Your task to perform on an android device: change alarm snooze length Image 0: 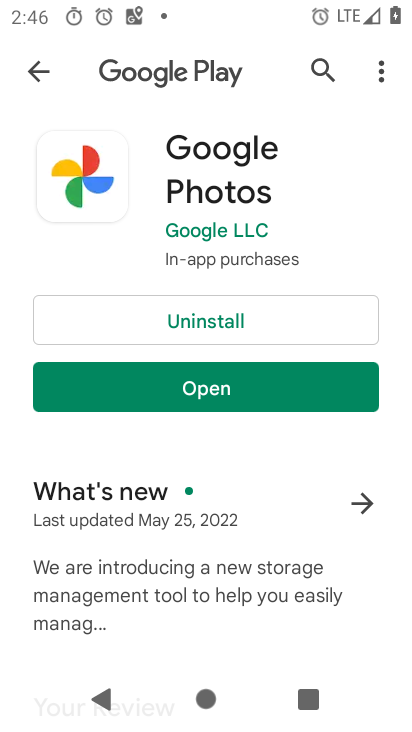
Step 0: press home button
Your task to perform on an android device: change alarm snooze length Image 1: 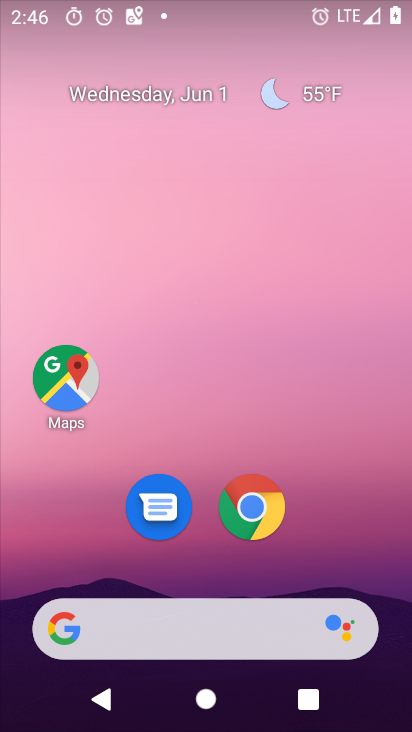
Step 1: drag from (304, 572) to (331, 6)
Your task to perform on an android device: change alarm snooze length Image 2: 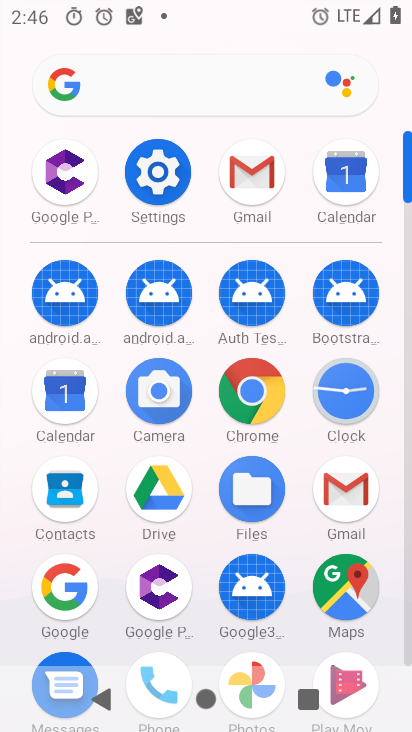
Step 2: click (345, 403)
Your task to perform on an android device: change alarm snooze length Image 3: 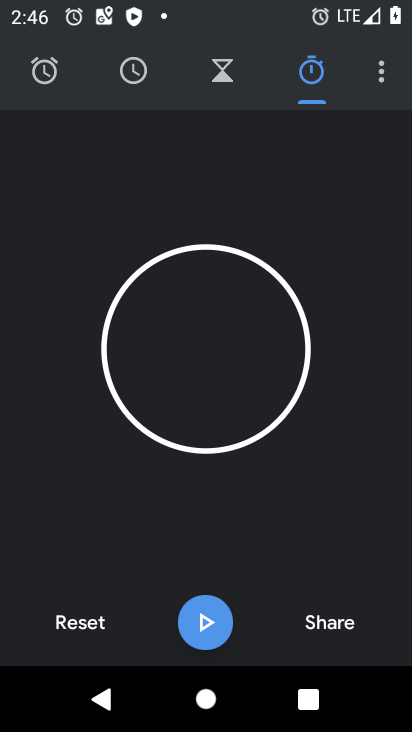
Step 3: click (383, 69)
Your task to perform on an android device: change alarm snooze length Image 4: 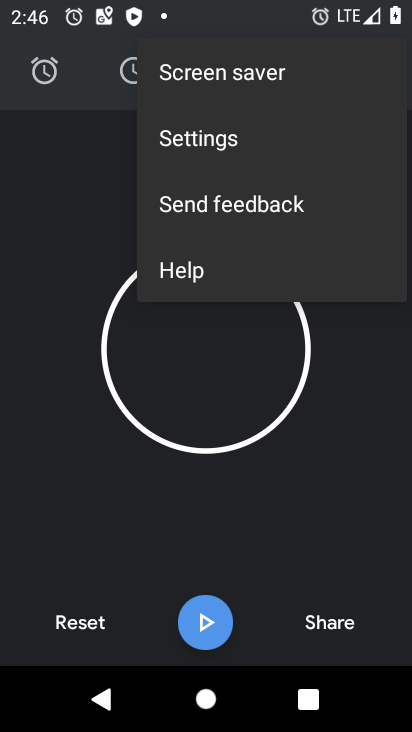
Step 4: click (212, 146)
Your task to perform on an android device: change alarm snooze length Image 5: 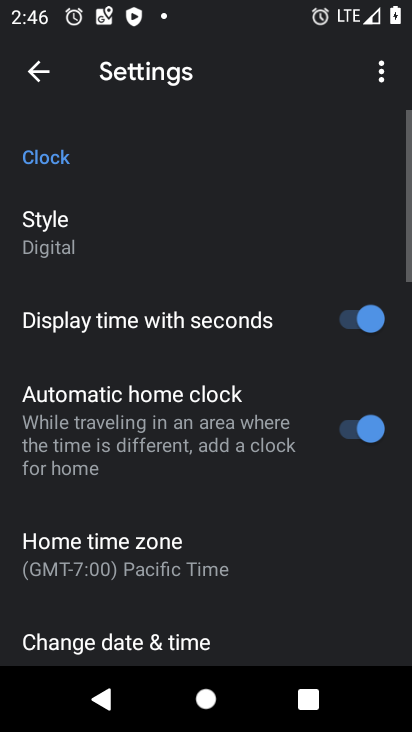
Step 5: drag from (111, 505) to (129, 79)
Your task to perform on an android device: change alarm snooze length Image 6: 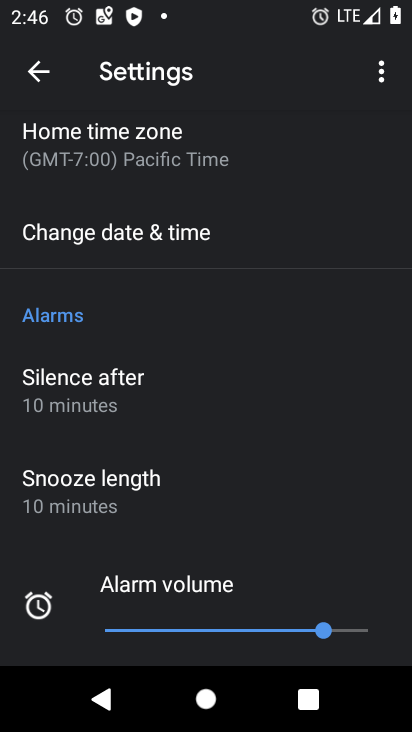
Step 6: drag from (105, 445) to (129, 63)
Your task to perform on an android device: change alarm snooze length Image 7: 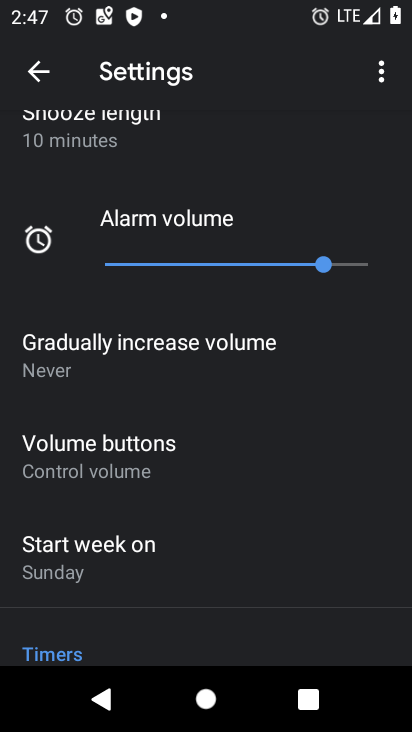
Step 7: click (79, 136)
Your task to perform on an android device: change alarm snooze length Image 8: 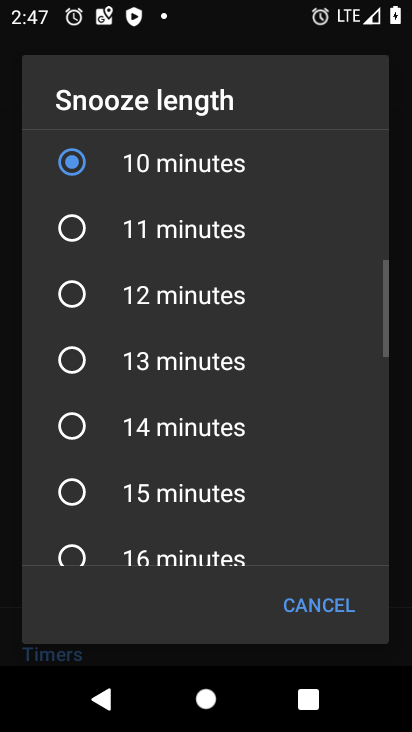
Step 8: drag from (143, 216) to (142, 387)
Your task to perform on an android device: change alarm snooze length Image 9: 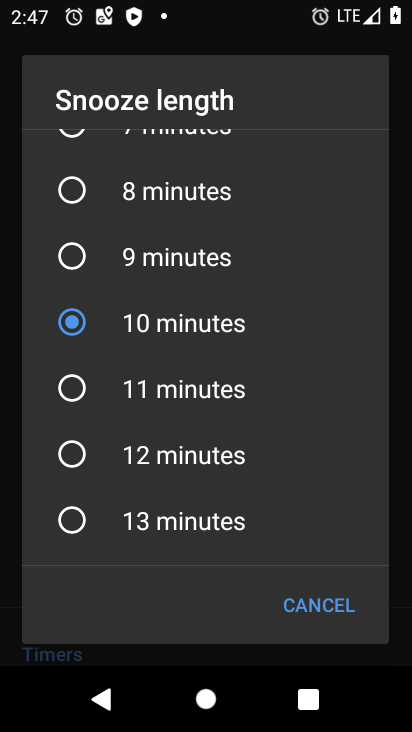
Step 9: click (84, 263)
Your task to perform on an android device: change alarm snooze length Image 10: 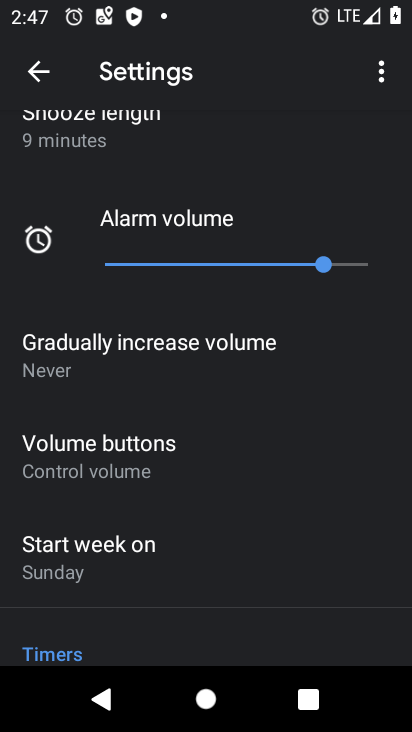
Step 10: task complete